Your task to perform on an android device: Open Youtube and go to "Your channel" Image 0: 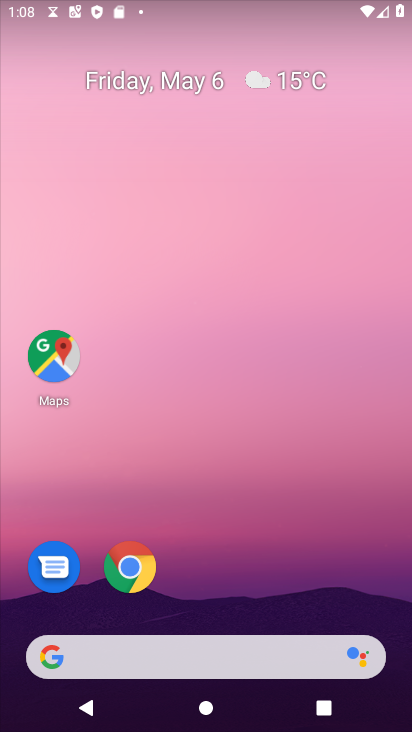
Step 0: drag from (312, 532) to (238, 118)
Your task to perform on an android device: Open Youtube and go to "Your channel" Image 1: 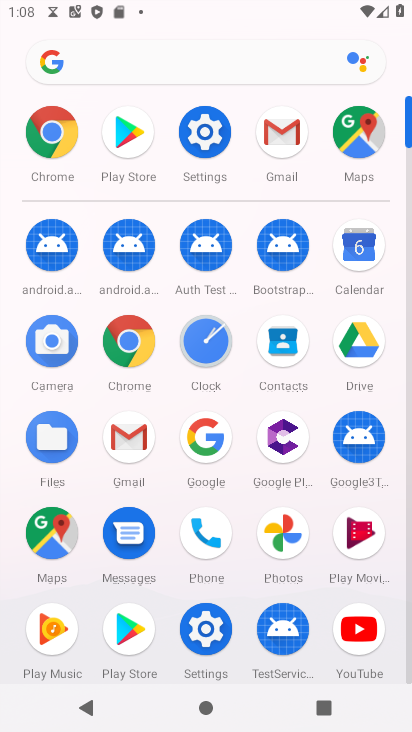
Step 1: click (364, 633)
Your task to perform on an android device: Open Youtube and go to "Your channel" Image 2: 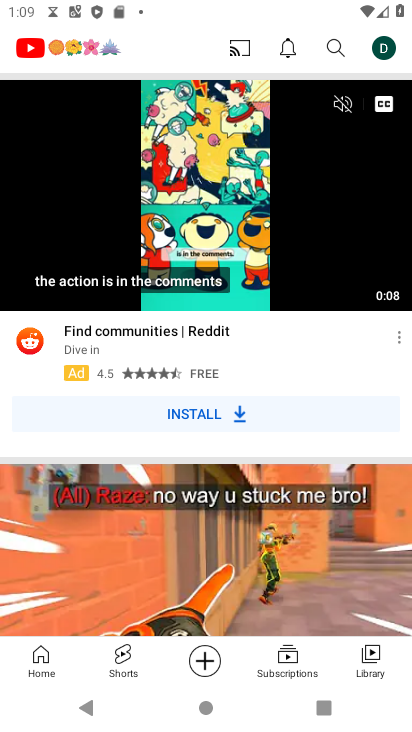
Step 2: click (36, 670)
Your task to perform on an android device: Open Youtube and go to "Your channel" Image 3: 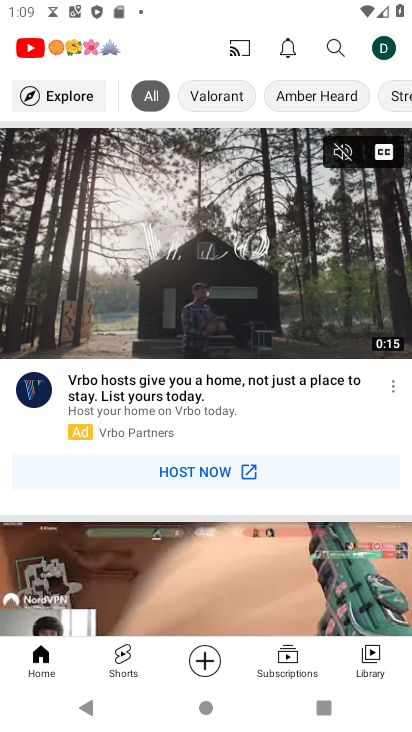
Step 3: click (384, 50)
Your task to perform on an android device: Open Youtube and go to "Your channel" Image 4: 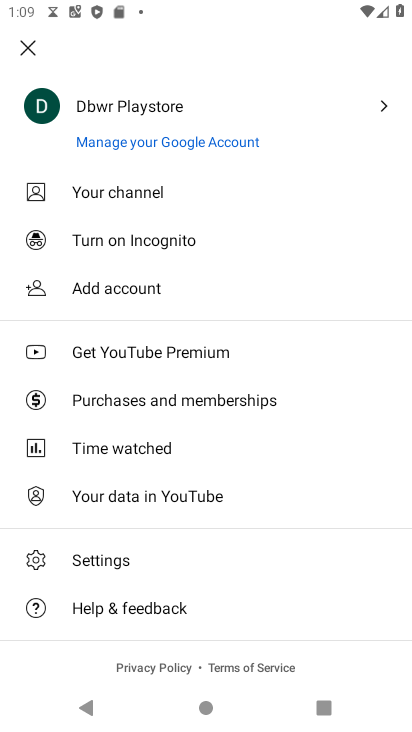
Step 4: click (126, 203)
Your task to perform on an android device: Open Youtube and go to "Your channel" Image 5: 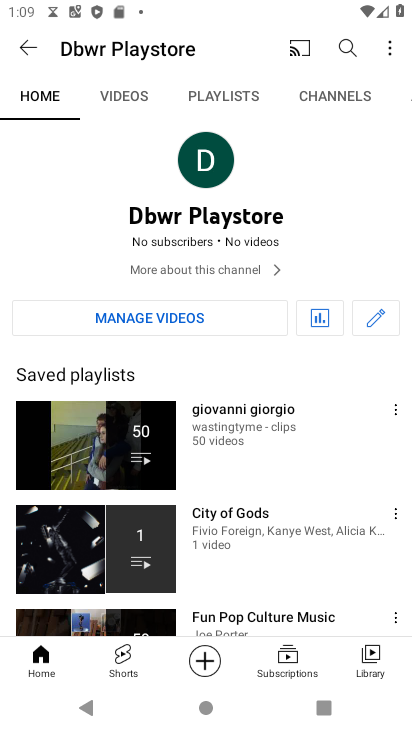
Step 5: task complete